Your task to perform on an android device: add a label to a message in the gmail app Image 0: 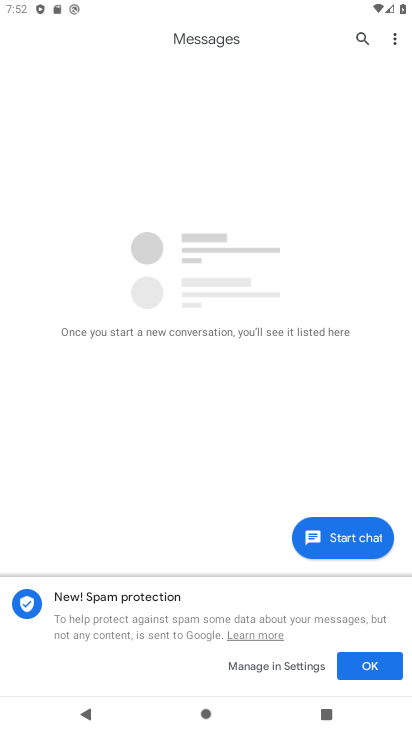
Step 0: press home button
Your task to perform on an android device: add a label to a message in the gmail app Image 1: 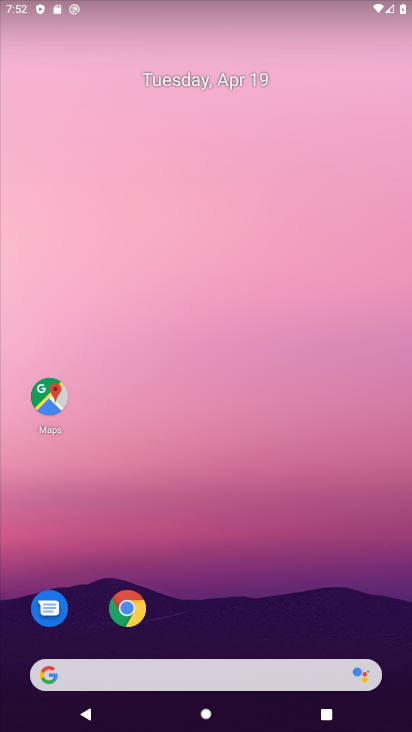
Step 1: drag from (215, 475) to (187, 100)
Your task to perform on an android device: add a label to a message in the gmail app Image 2: 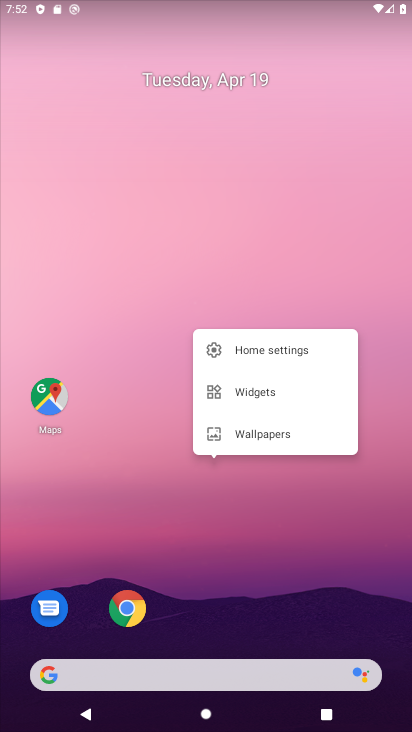
Step 2: drag from (215, 537) to (294, 105)
Your task to perform on an android device: add a label to a message in the gmail app Image 3: 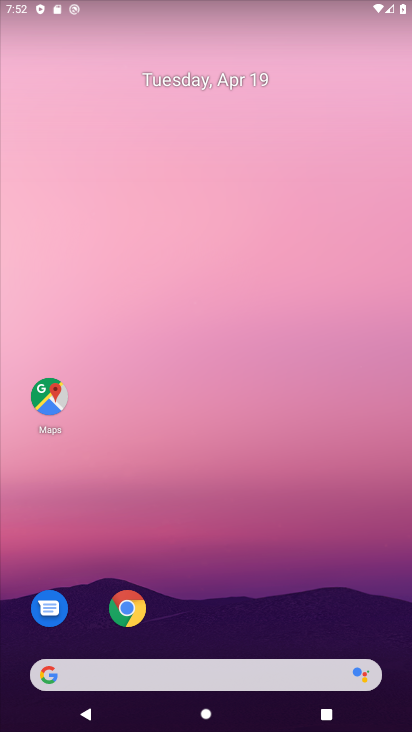
Step 3: drag from (228, 605) to (280, 1)
Your task to perform on an android device: add a label to a message in the gmail app Image 4: 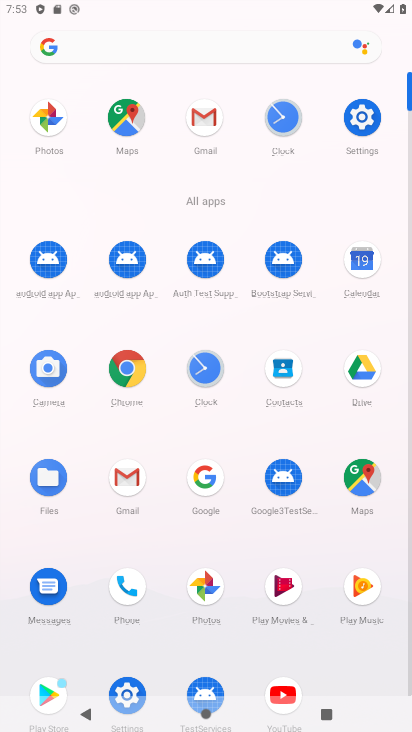
Step 4: click (204, 120)
Your task to perform on an android device: add a label to a message in the gmail app Image 5: 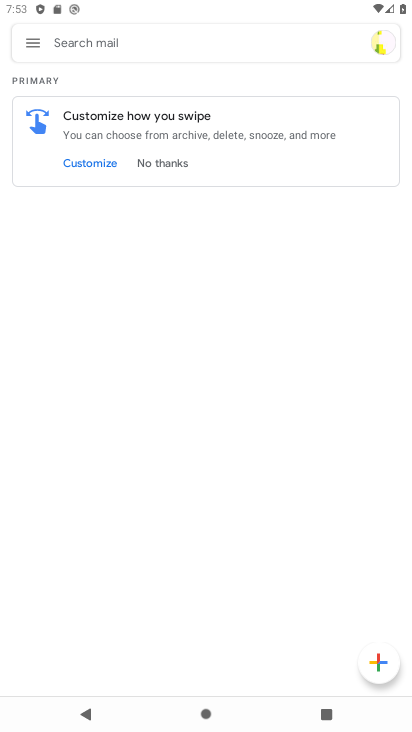
Step 5: click (36, 39)
Your task to perform on an android device: add a label to a message in the gmail app Image 6: 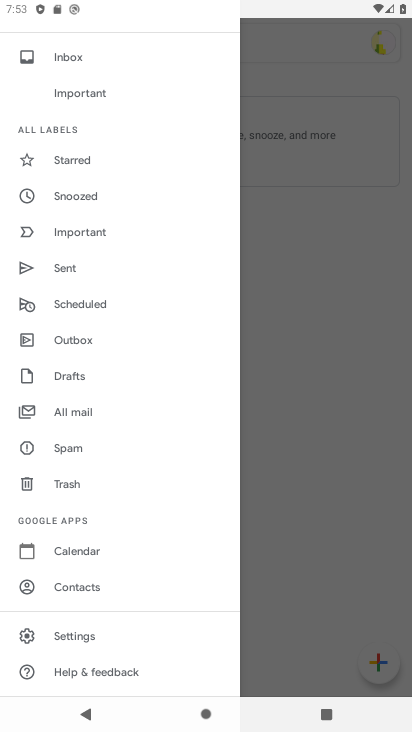
Step 6: click (84, 416)
Your task to perform on an android device: add a label to a message in the gmail app Image 7: 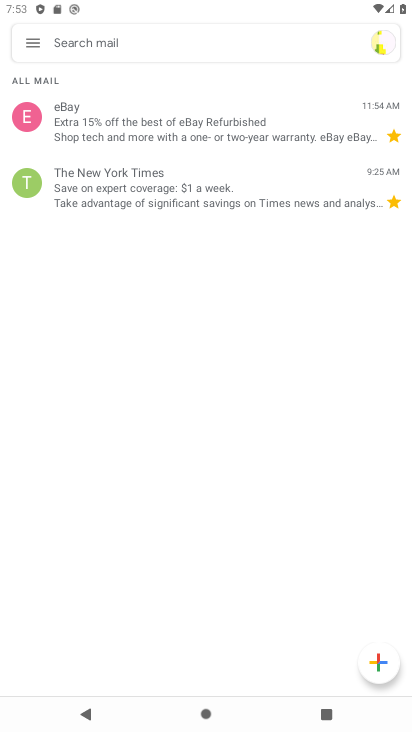
Step 7: click (144, 176)
Your task to perform on an android device: add a label to a message in the gmail app Image 8: 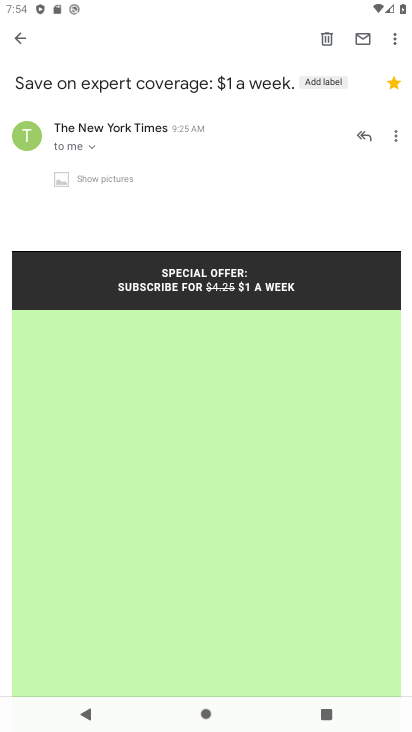
Step 8: task complete